Your task to perform on an android device: What is the recent news? Image 0: 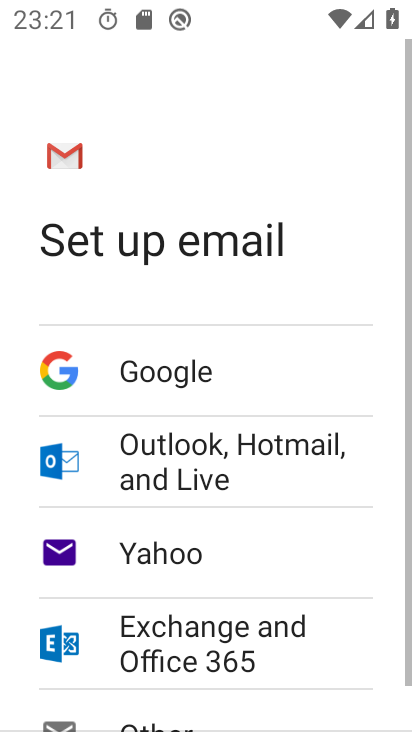
Step 0: press home button
Your task to perform on an android device: What is the recent news? Image 1: 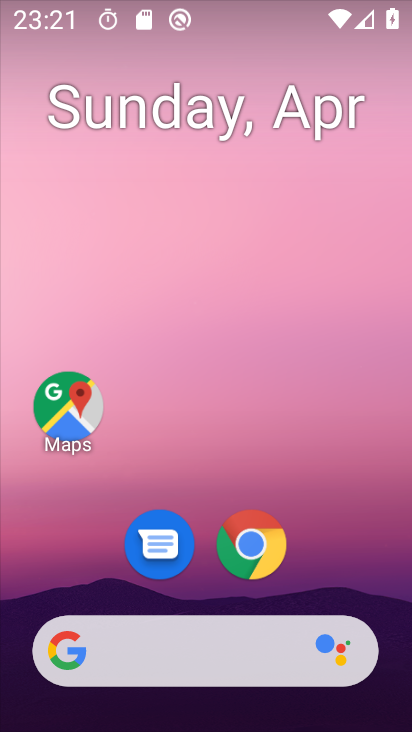
Step 1: drag from (331, 517) to (303, 188)
Your task to perform on an android device: What is the recent news? Image 2: 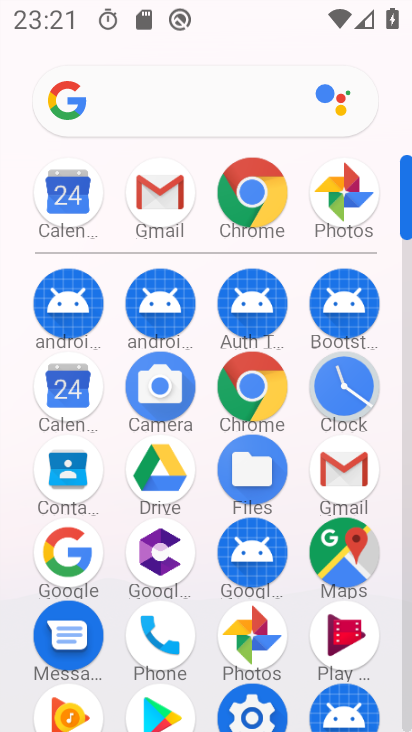
Step 2: click (251, 187)
Your task to perform on an android device: What is the recent news? Image 3: 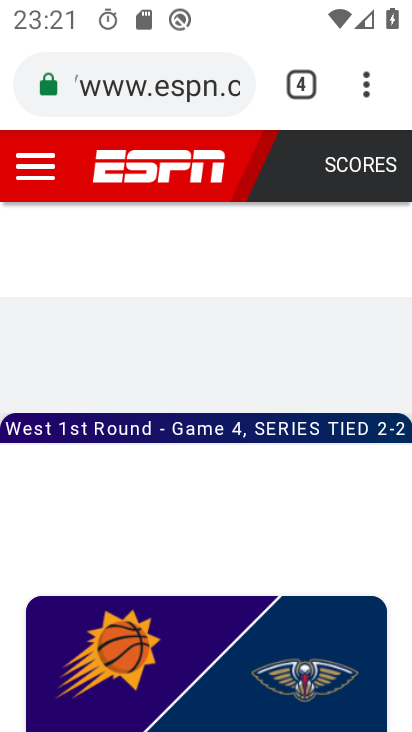
Step 3: click (357, 84)
Your task to perform on an android device: What is the recent news? Image 4: 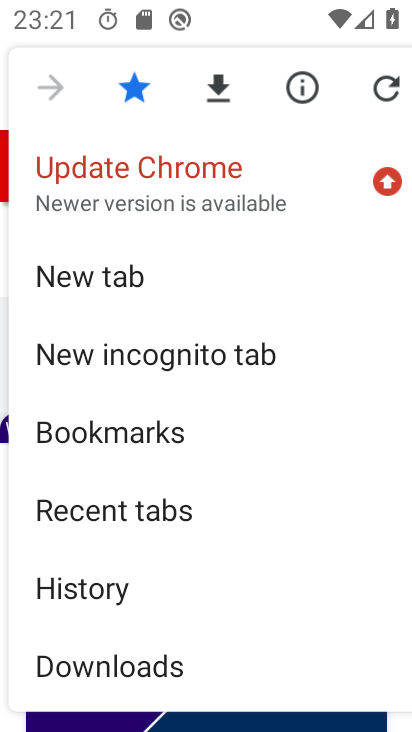
Step 4: click (127, 282)
Your task to perform on an android device: What is the recent news? Image 5: 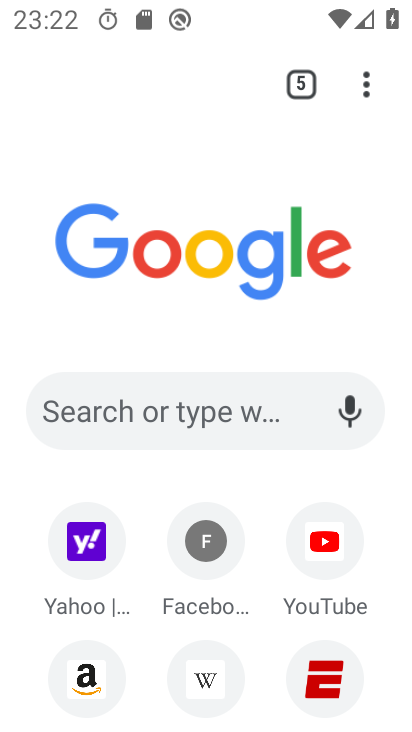
Step 5: click (232, 390)
Your task to perform on an android device: What is the recent news? Image 6: 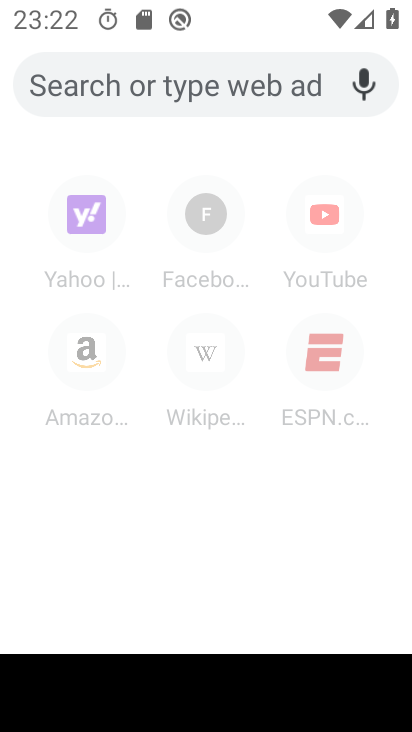
Step 6: type "recent news"
Your task to perform on an android device: What is the recent news? Image 7: 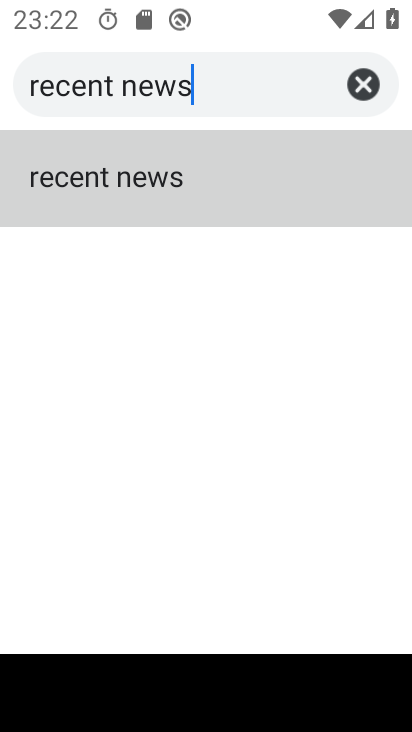
Step 7: click (85, 175)
Your task to perform on an android device: What is the recent news? Image 8: 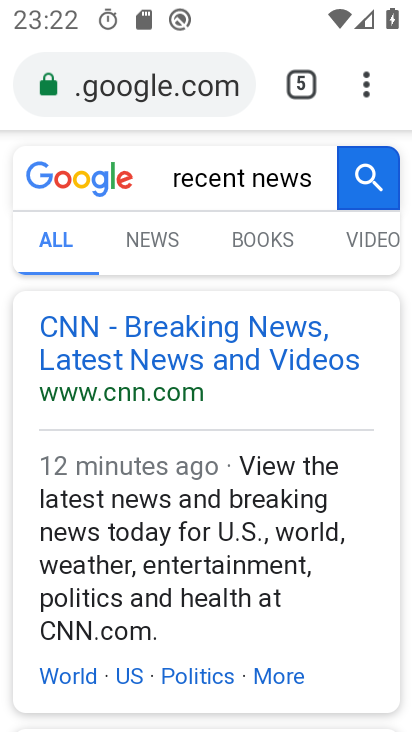
Step 8: task complete